Your task to perform on an android device: Go to Yahoo.com Image 0: 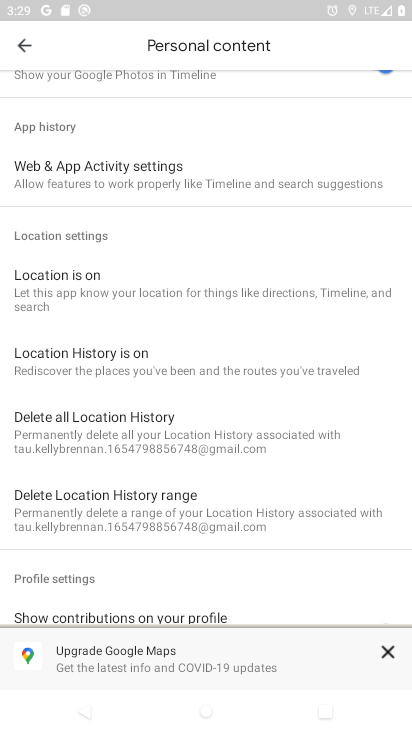
Step 0: press home button
Your task to perform on an android device: Go to Yahoo.com Image 1: 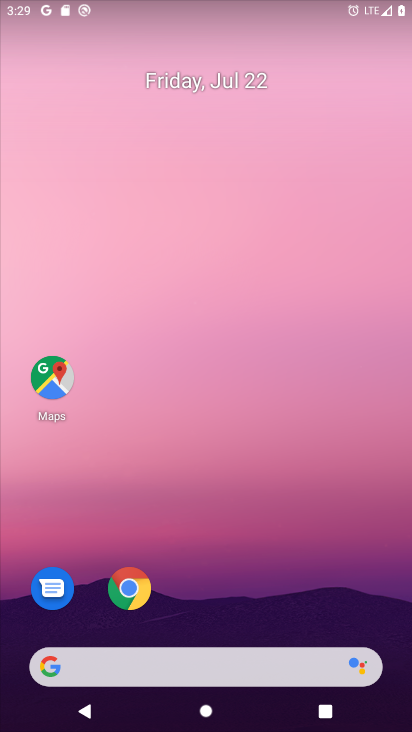
Step 1: drag from (259, 437) to (263, 138)
Your task to perform on an android device: Go to Yahoo.com Image 2: 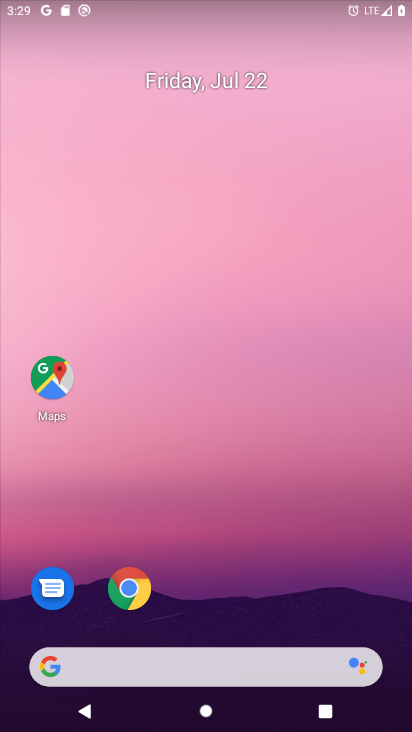
Step 2: drag from (254, 589) to (245, 37)
Your task to perform on an android device: Go to Yahoo.com Image 3: 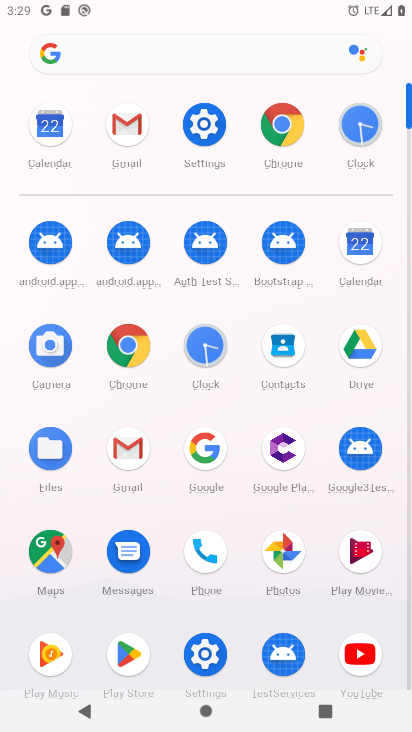
Step 3: click (126, 357)
Your task to perform on an android device: Go to Yahoo.com Image 4: 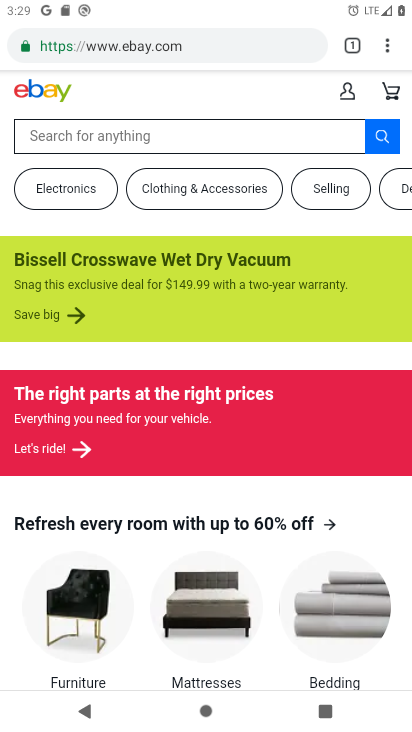
Step 4: click (111, 46)
Your task to perform on an android device: Go to Yahoo.com Image 5: 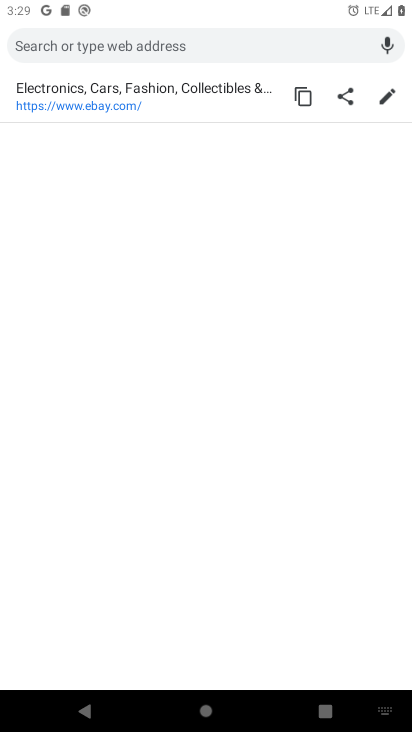
Step 5: type "yahoo.com"
Your task to perform on an android device: Go to Yahoo.com Image 6: 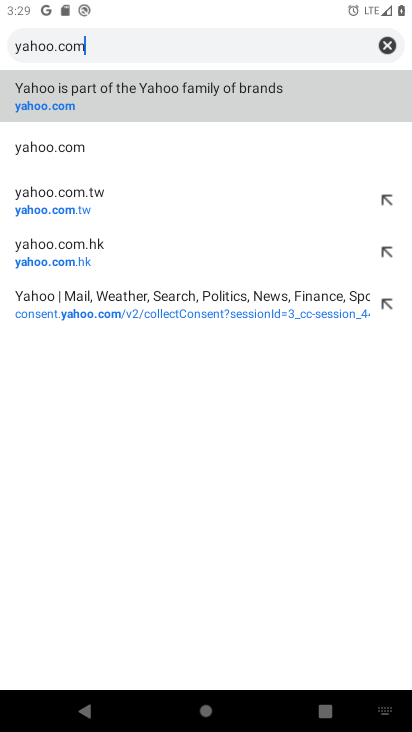
Step 6: click (44, 100)
Your task to perform on an android device: Go to Yahoo.com Image 7: 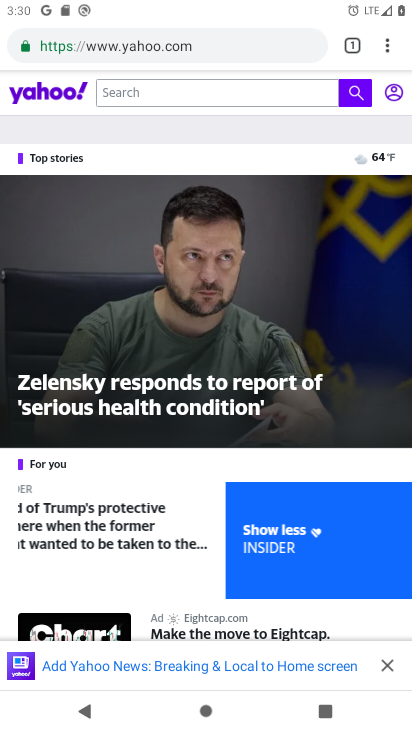
Step 7: task complete